Your task to perform on an android device: Go to sound settings Image 0: 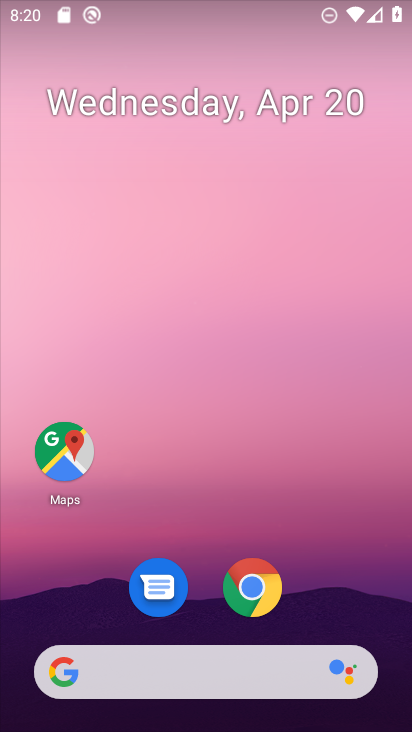
Step 0: drag from (308, 593) to (266, 123)
Your task to perform on an android device: Go to sound settings Image 1: 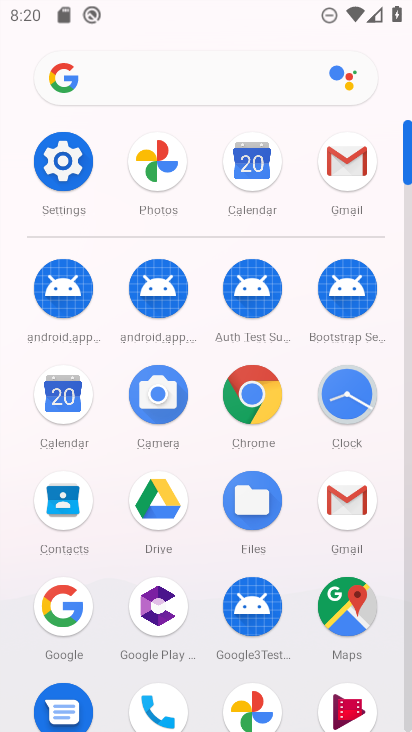
Step 1: click (71, 155)
Your task to perform on an android device: Go to sound settings Image 2: 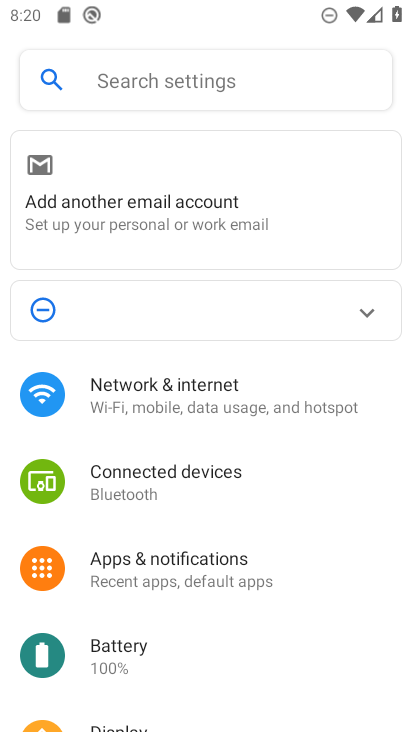
Step 2: drag from (168, 555) to (222, 208)
Your task to perform on an android device: Go to sound settings Image 3: 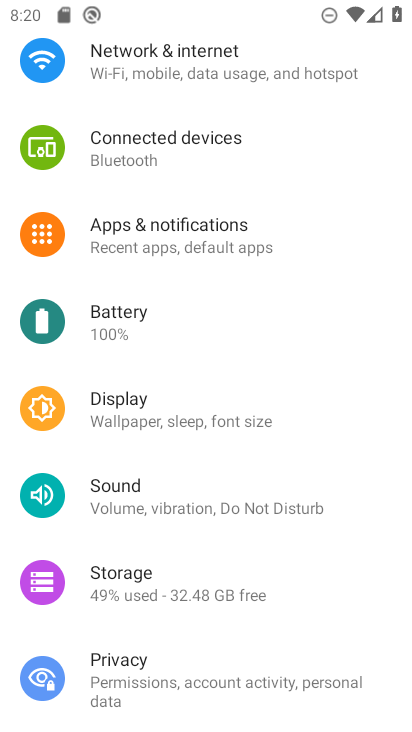
Step 3: click (146, 489)
Your task to perform on an android device: Go to sound settings Image 4: 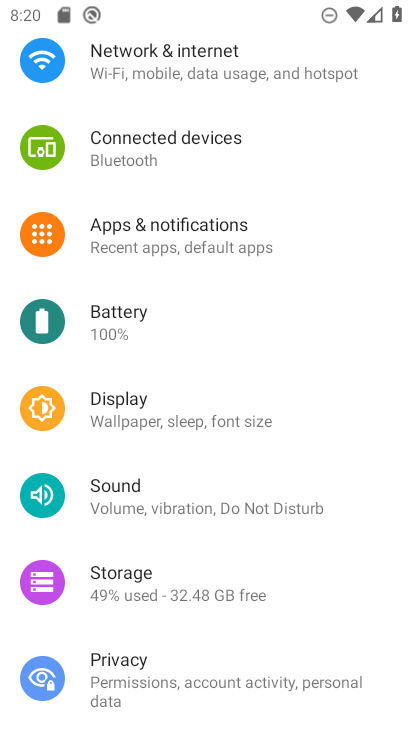
Step 4: task complete